Your task to perform on an android device: set the timer Image 0: 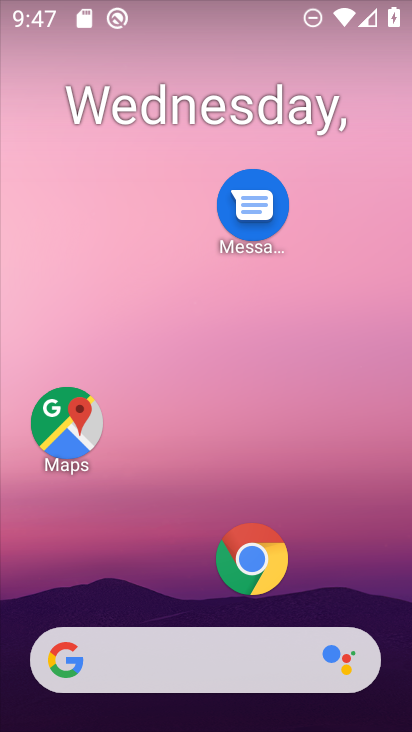
Step 0: drag from (291, 611) to (259, 200)
Your task to perform on an android device: set the timer Image 1: 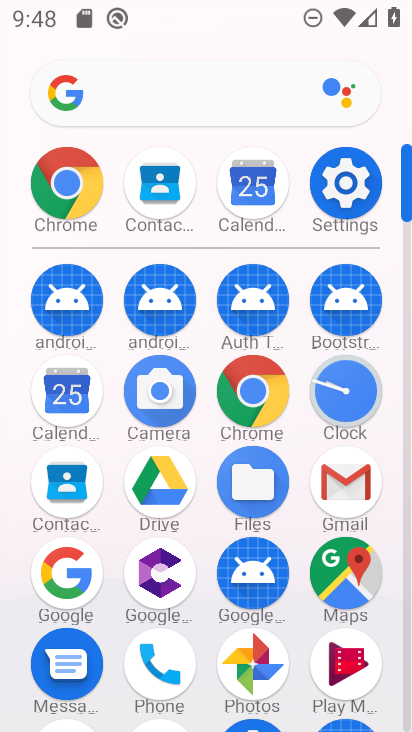
Step 1: click (354, 418)
Your task to perform on an android device: set the timer Image 2: 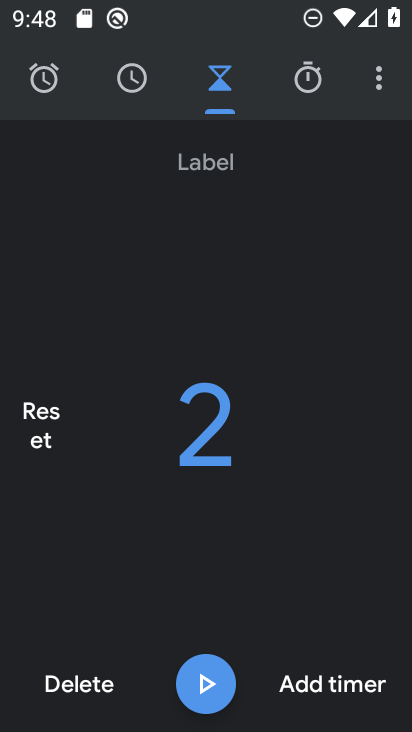
Step 2: click (225, 681)
Your task to perform on an android device: set the timer Image 3: 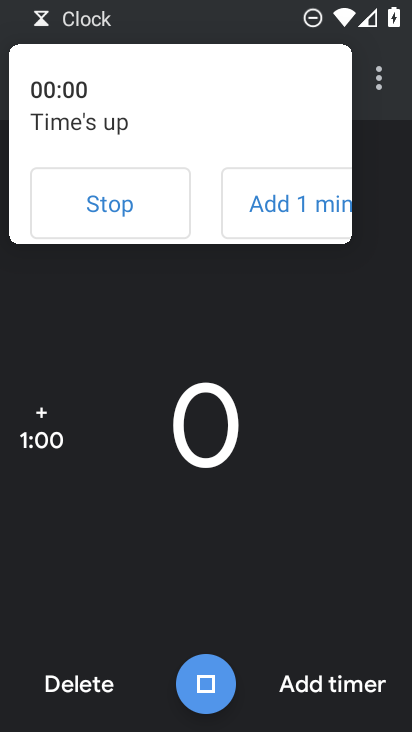
Step 3: task complete